Your task to perform on an android device: Go to Google maps Image 0: 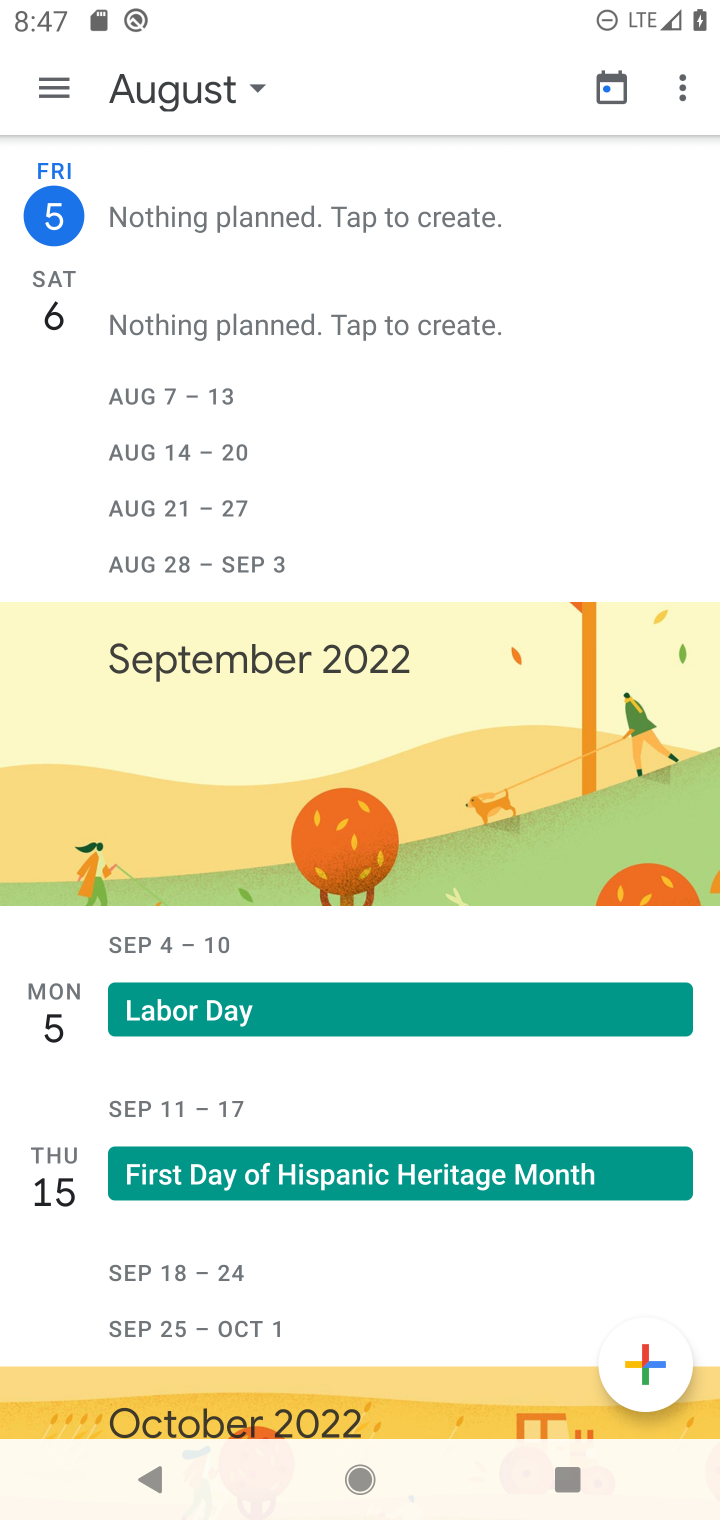
Step 0: press home button
Your task to perform on an android device: Go to Google maps Image 1: 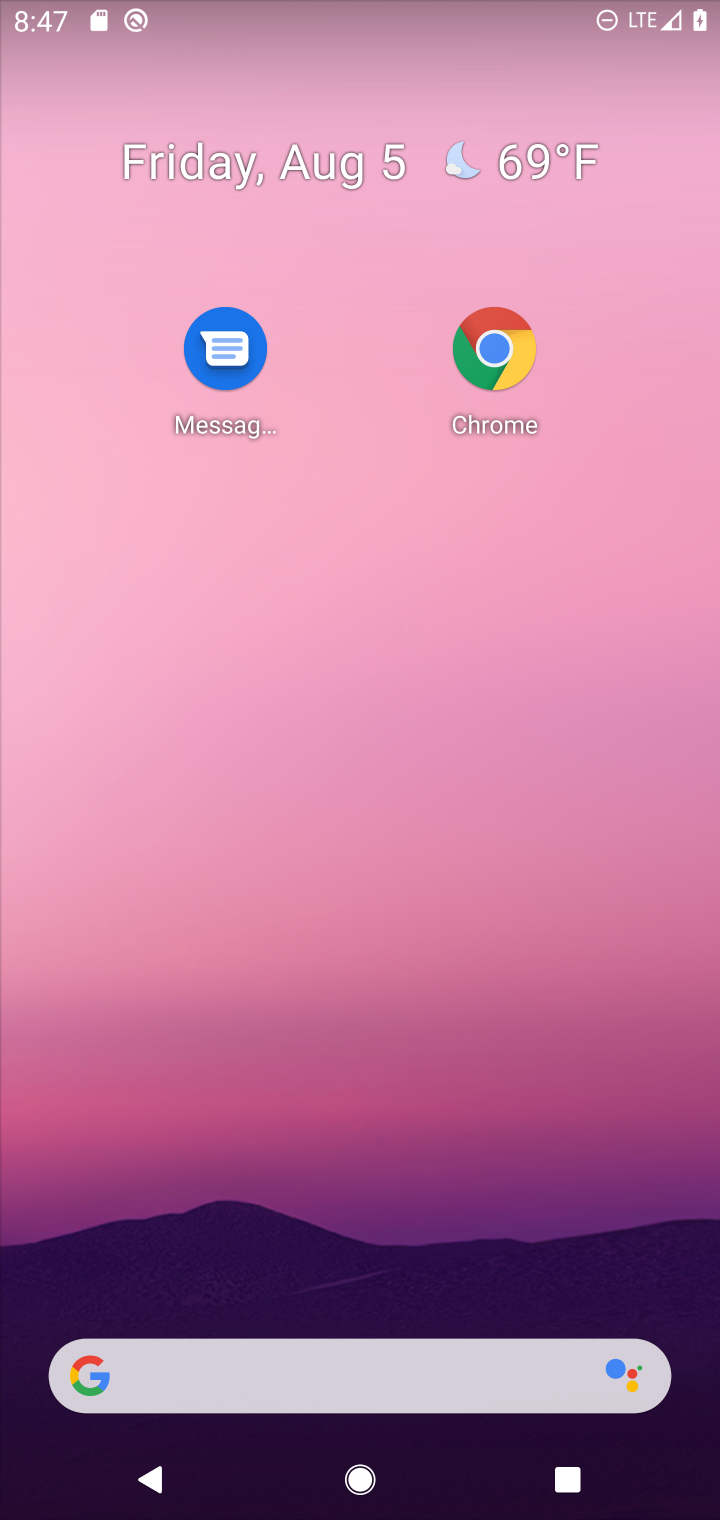
Step 1: drag from (405, 1379) to (392, 599)
Your task to perform on an android device: Go to Google maps Image 2: 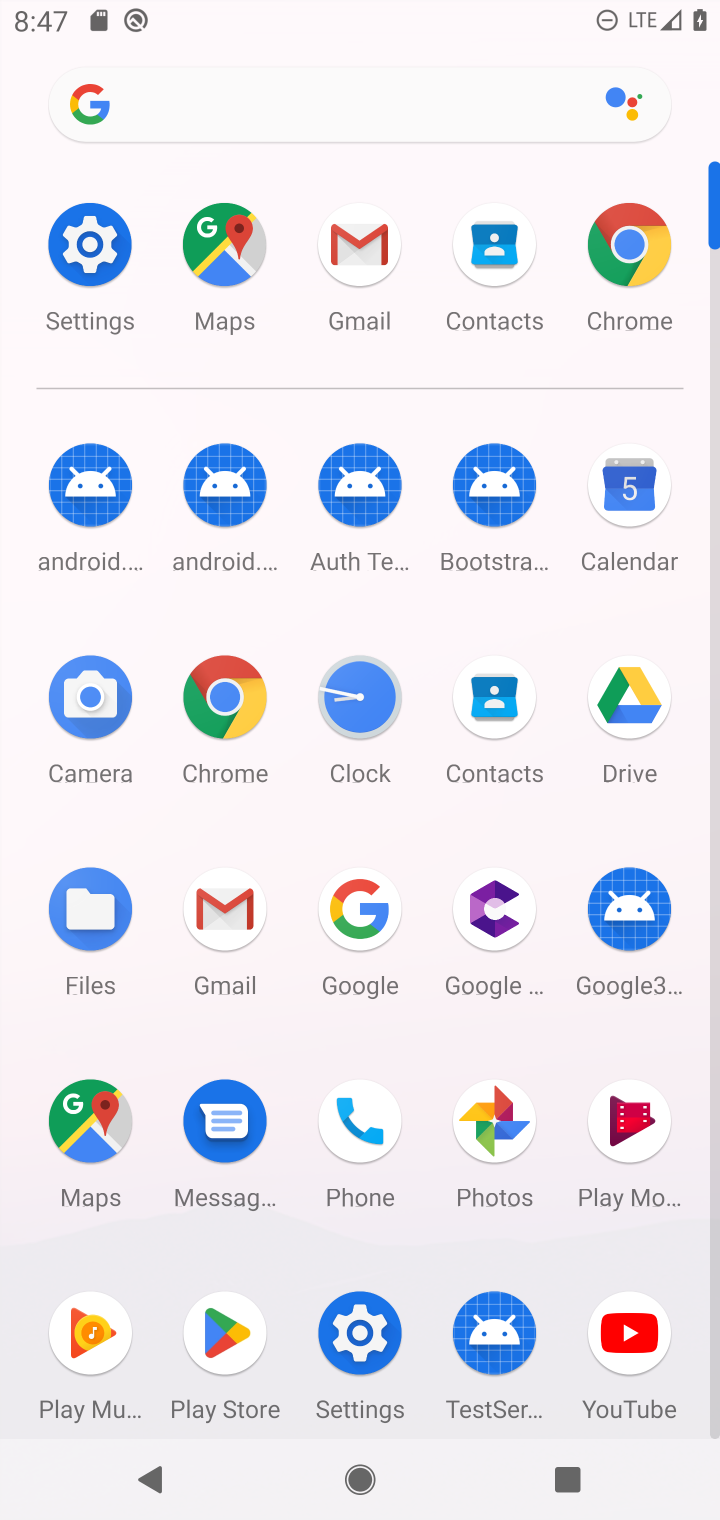
Step 2: click (216, 243)
Your task to perform on an android device: Go to Google maps Image 3: 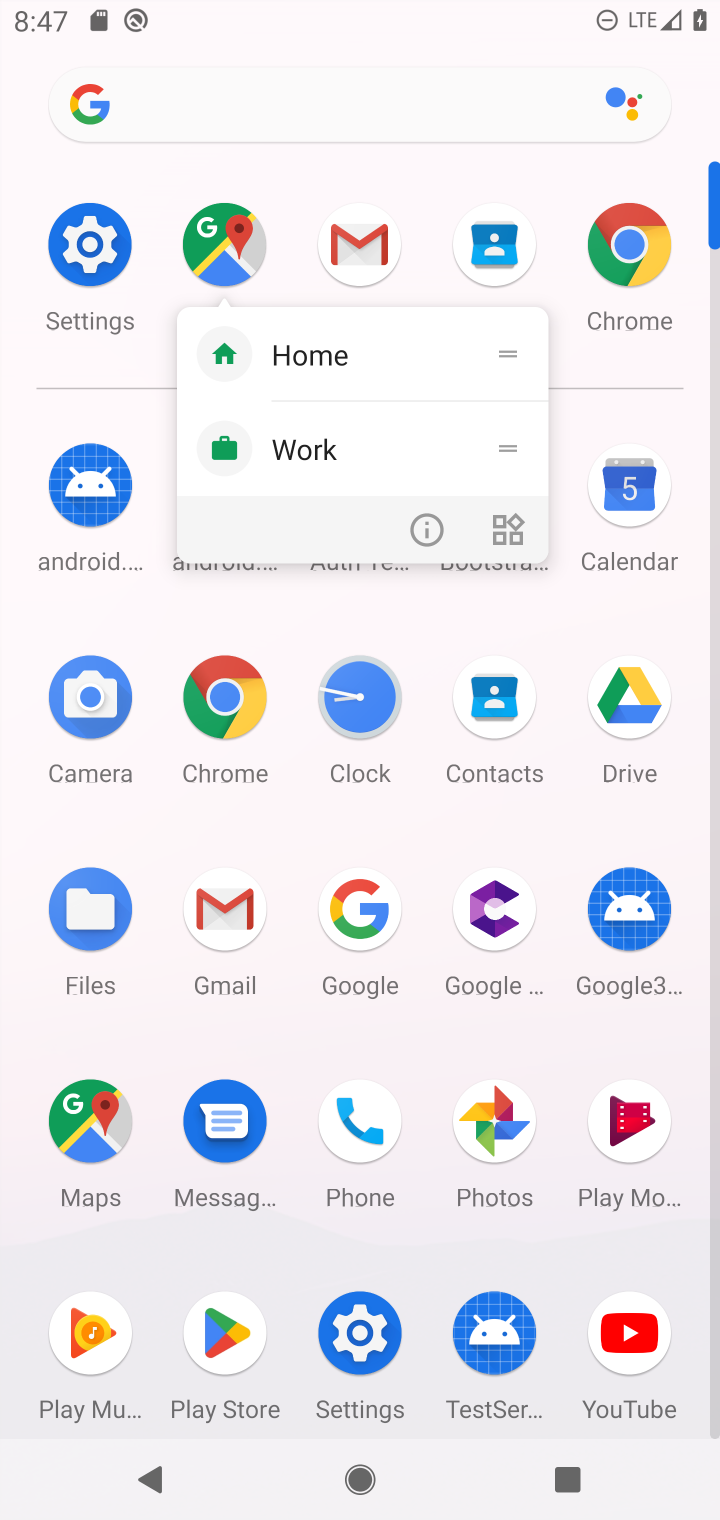
Step 3: click (222, 238)
Your task to perform on an android device: Go to Google maps Image 4: 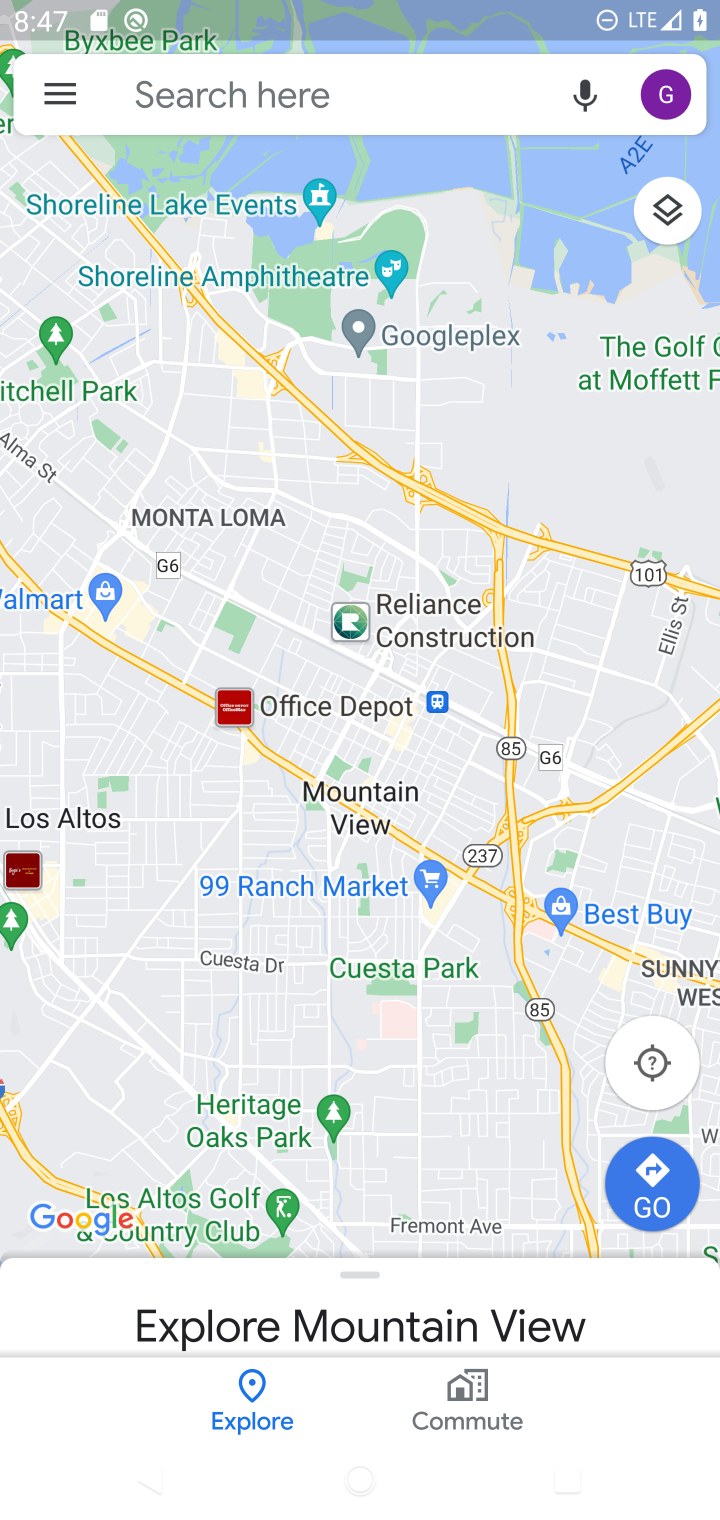
Step 4: click (652, 1071)
Your task to perform on an android device: Go to Google maps Image 5: 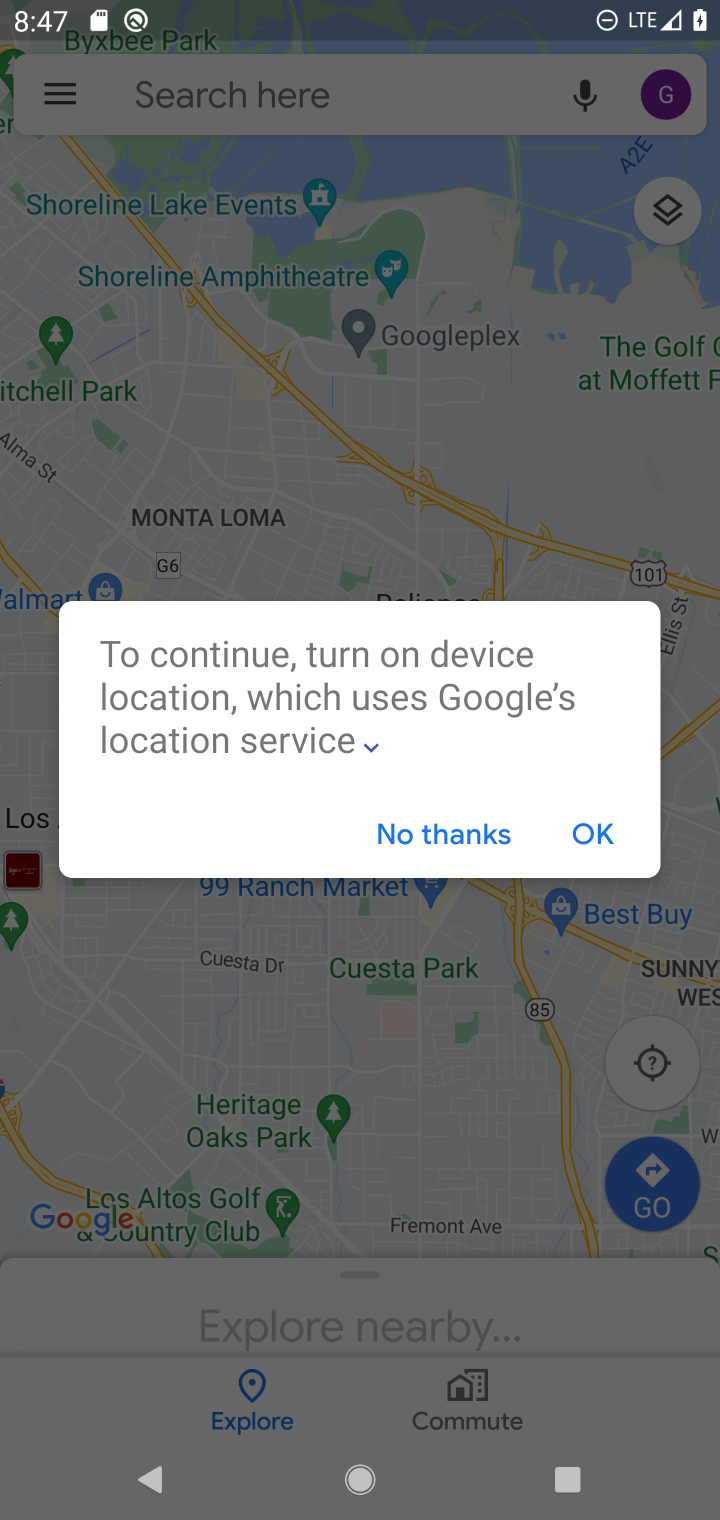
Step 5: click (587, 838)
Your task to perform on an android device: Go to Google maps Image 6: 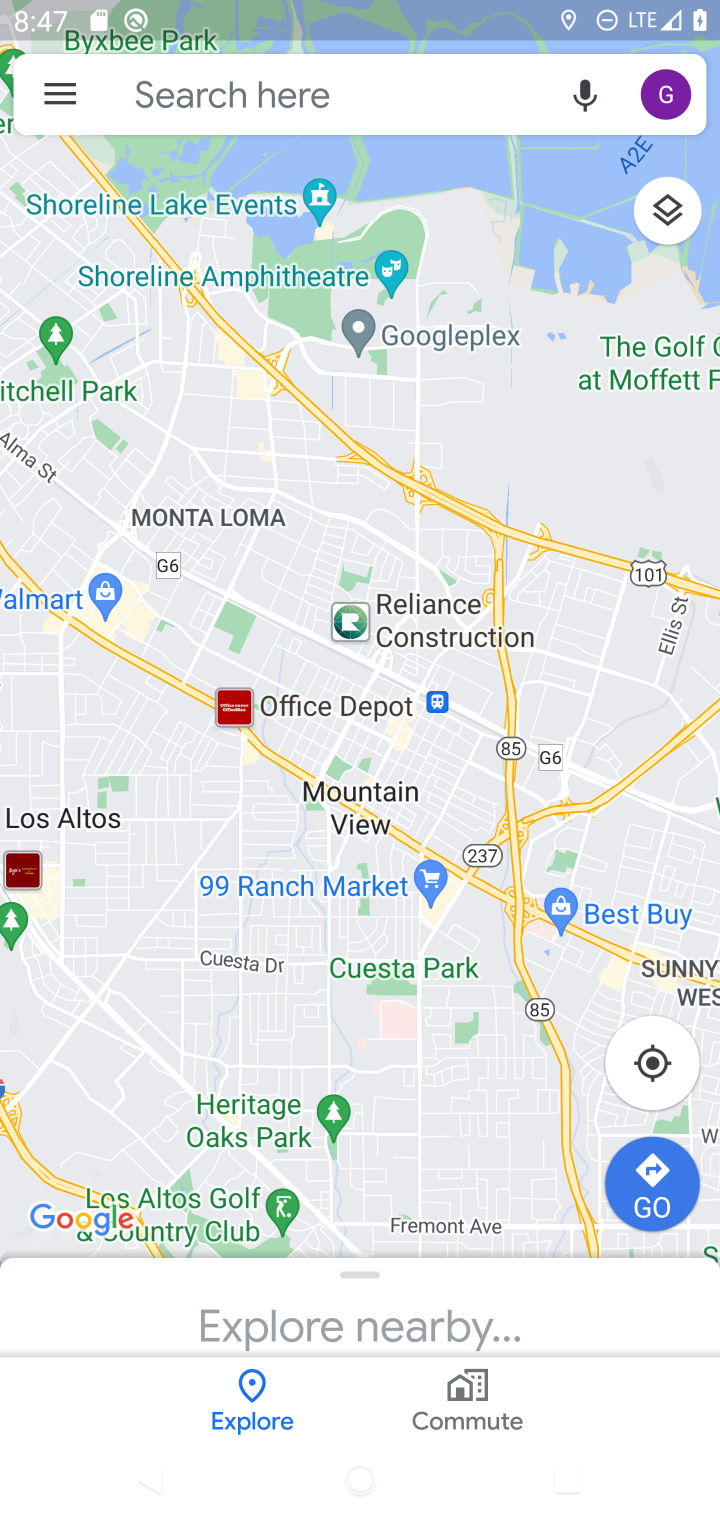
Step 6: click (653, 1066)
Your task to perform on an android device: Go to Google maps Image 7: 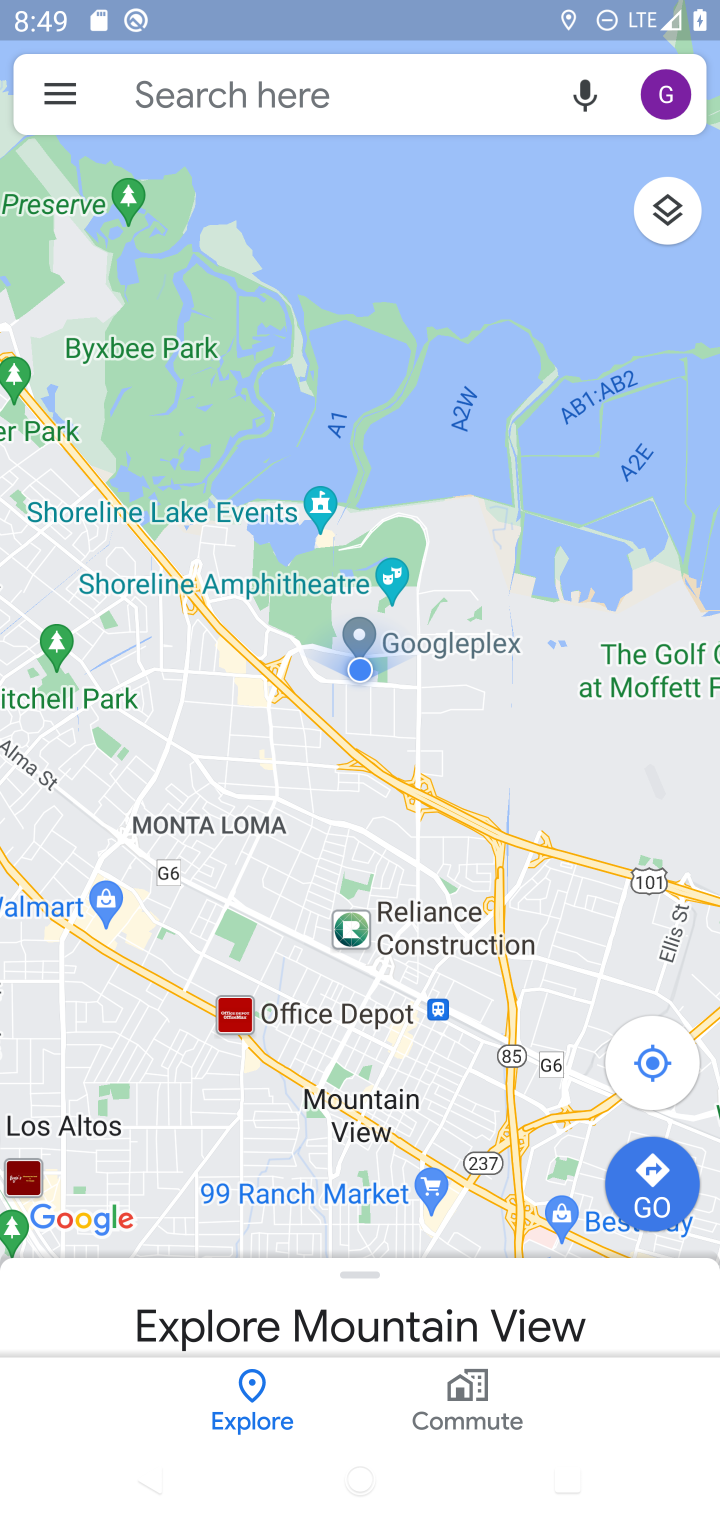
Step 7: task complete